Your task to perform on an android device: Show me recent news Image 0: 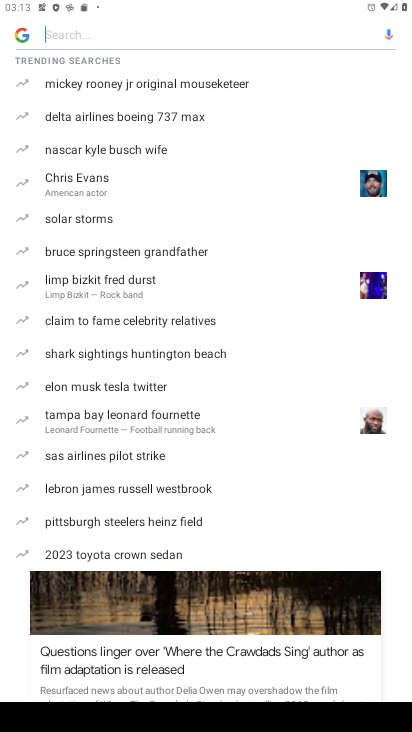
Step 0: press home button
Your task to perform on an android device: Show me recent news Image 1: 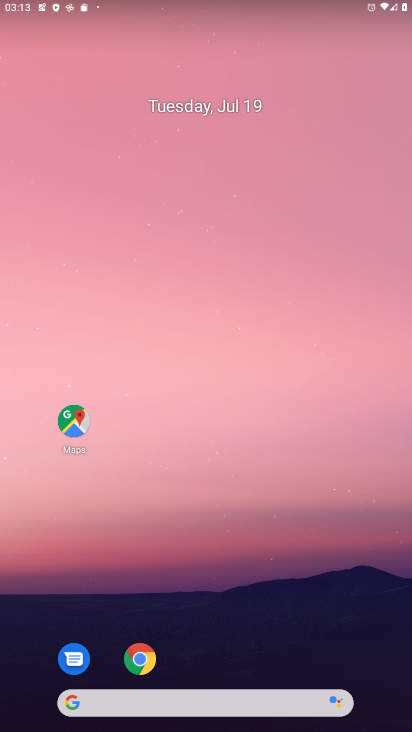
Step 1: drag from (284, 642) to (309, 4)
Your task to perform on an android device: Show me recent news Image 2: 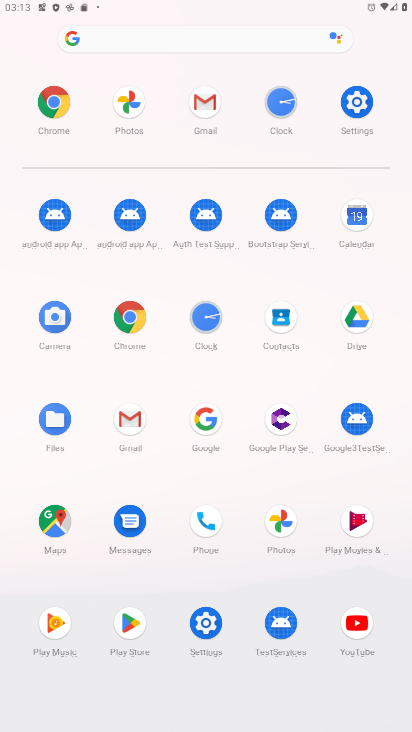
Step 2: click (120, 327)
Your task to perform on an android device: Show me recent news Image 3: 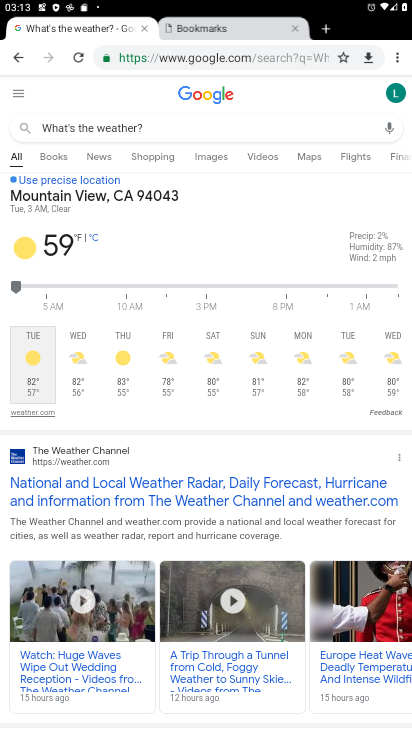
Step 3: click (170, 55)
Your task to perform on an android device: Show me recent news Image 4: 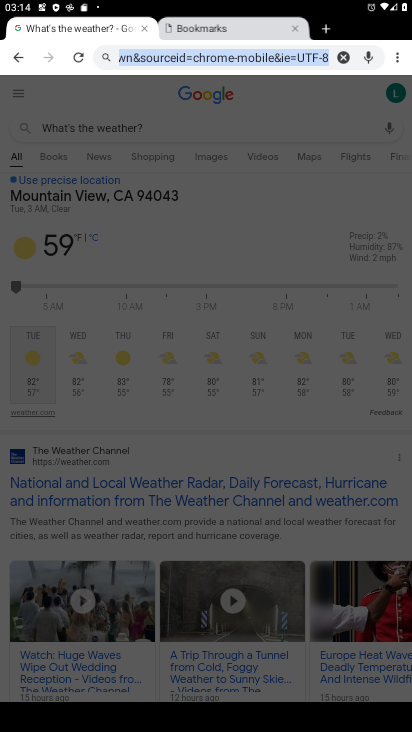
Step 4: type "recent news"
Your task to perform on an android device: Show me recent news Image 5: 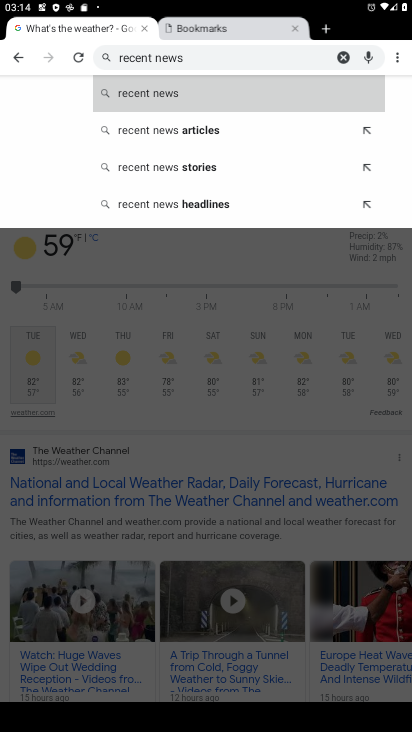
Step 5: click (371, 85)
Your task to perform on an android device: Show me recent news Image 6: 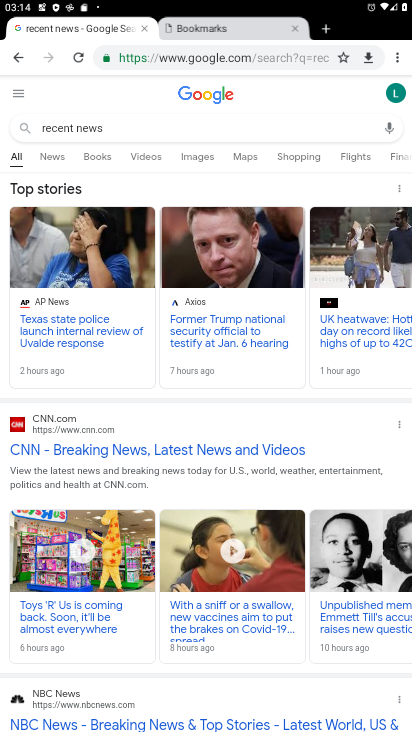
Step 6: task complete